Your task to perform on an android device: make emails show in primary in the gmail app Image 0: 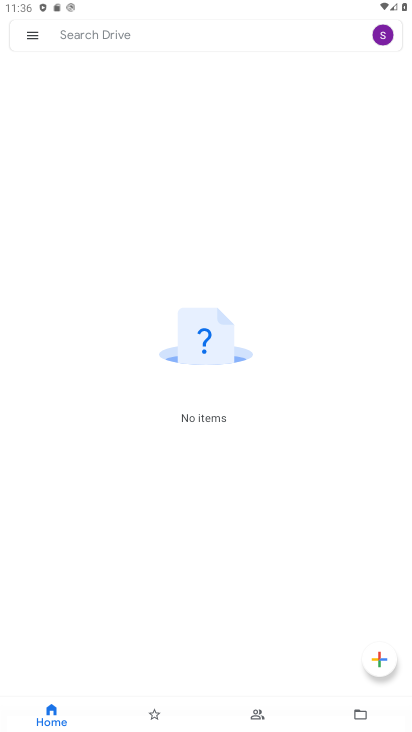
Step 0: press home button
Your task to perform on an android device: make emails show in primary in the gmail app Image 1: 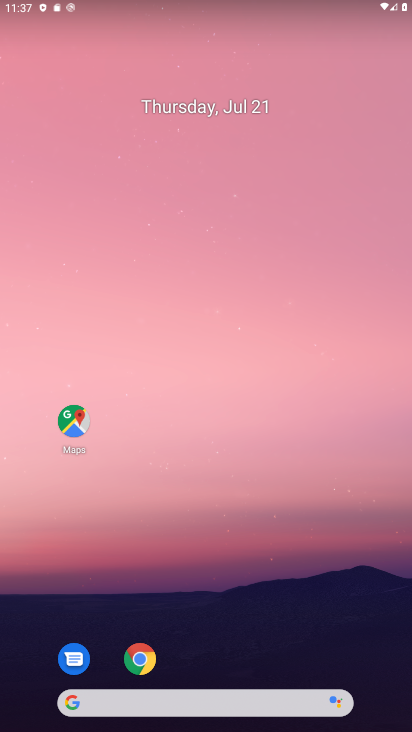
Step 1: task complete